Your task to perform on an android device: Open Yahoo.com Image 0: 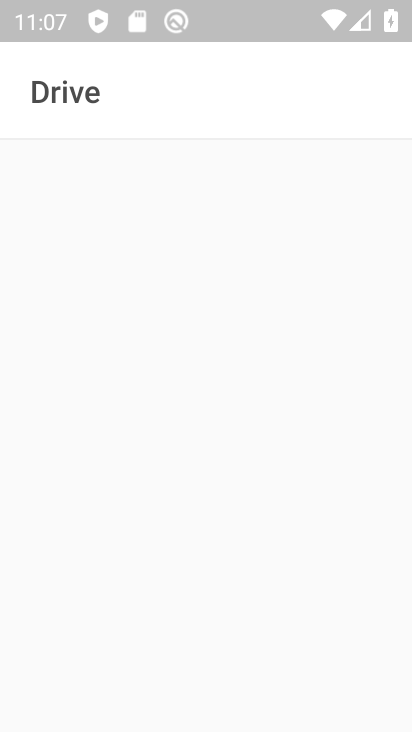
Step 0: press home button
Your task to perform on an android device: Open Yahoo.com Image 1: 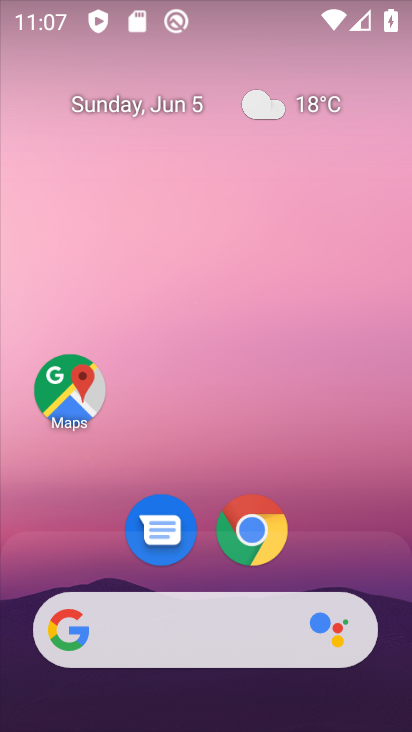
Step 1: drag from (320, 572) to (259, 90)
Your task to perform on an android device: Open Yahoo.com Image 2: 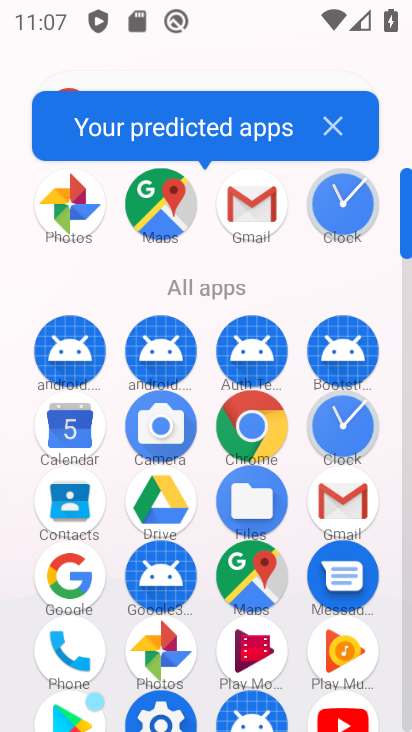
Step 2: click (254, 435)
Your task to perform on an android device: Open Yahoo.com Image 3: 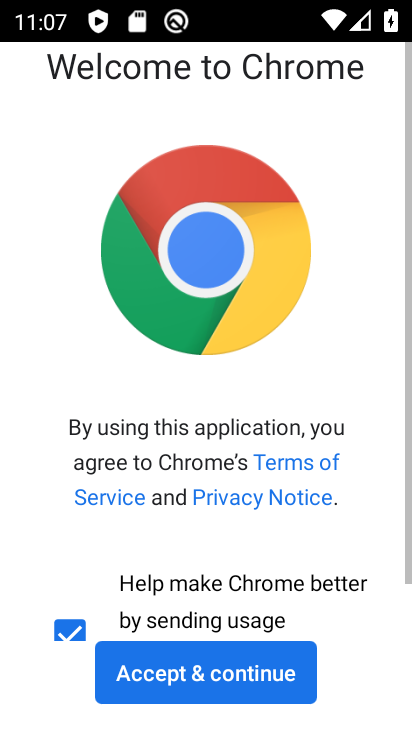
Step 3: click (219, 660)
Your task to perform on an android device: Open Yahoo.com Image 4: 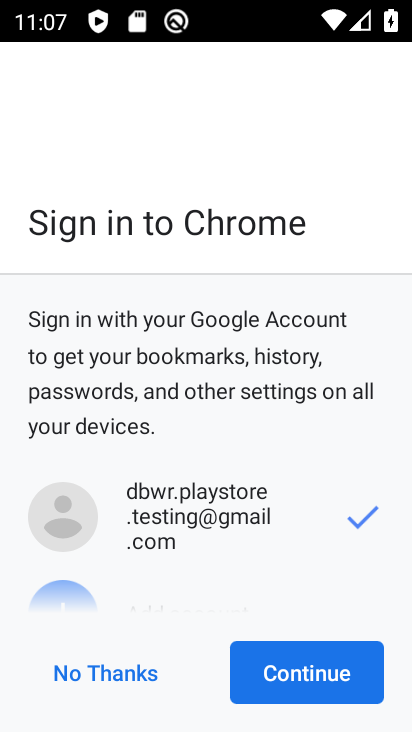
Step 4: click (150, 668)
Your task to perform on an android device: Open Yahoo.com Image 5: 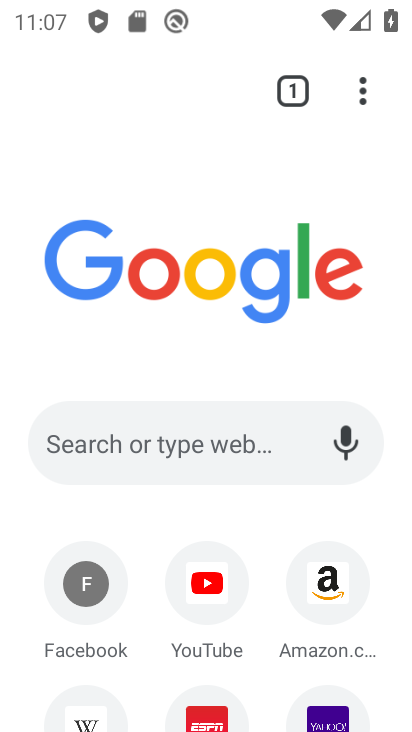
Step 5: drag from (389, 630) to (411, 360)
Your task to perform on an android device: Open Yahoo.com Image 6: 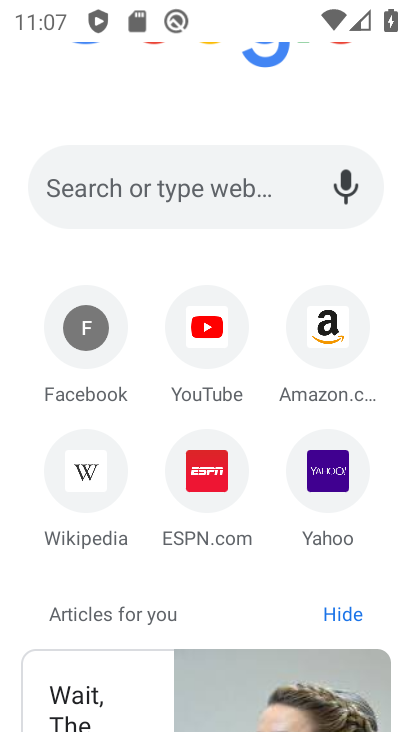
Step 6: click (336, 504)
Your task to perform on an android device: Open Yahoo.com Image 7: 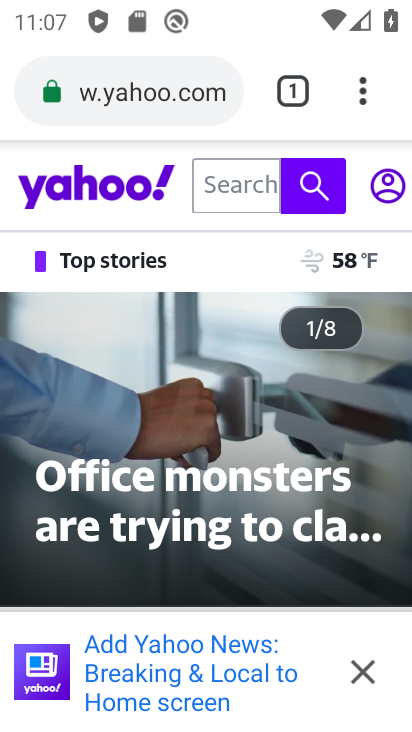
Step 7: task complete